Your task to perform on an android device: open the mobile data screen to see how much data has been used Image 0: 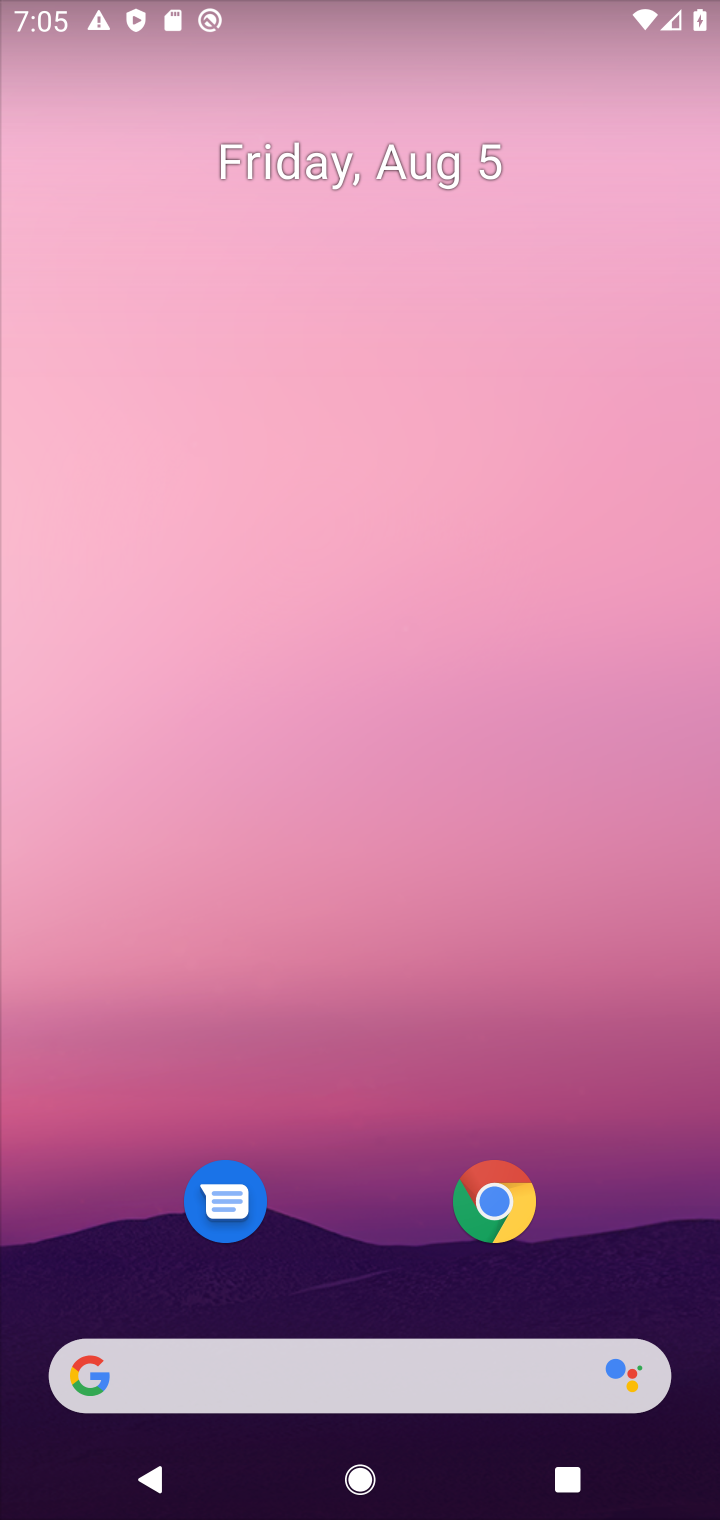
Step 0: drag from (512, 1203) to (474, 245)
Your task to perform on an android device: open the mobile data screen to see how much data has been used Image 1: 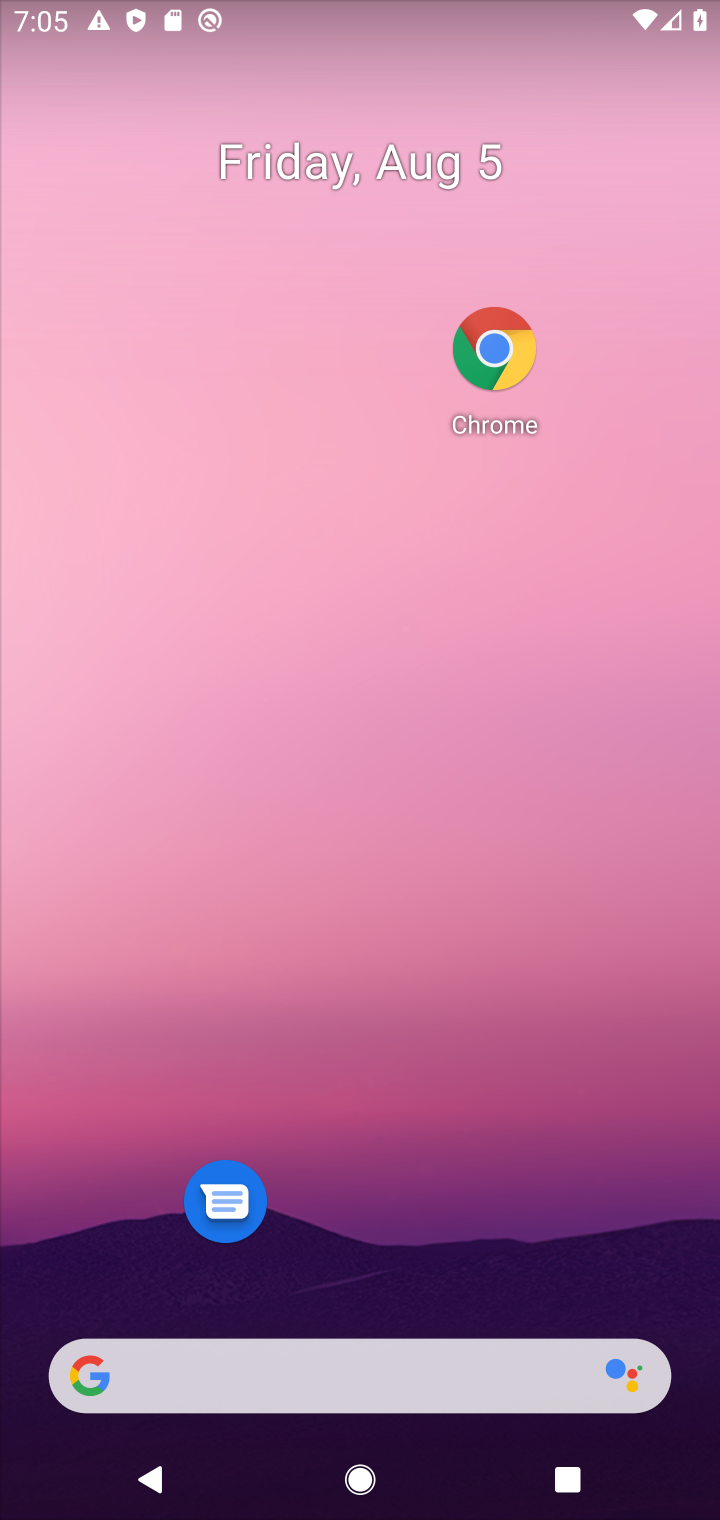
Step 1: drag from (205, 1184) to (213, 431)
Your task to perform on an android device: open the mobile data screen to see how much data has been used Image 2: 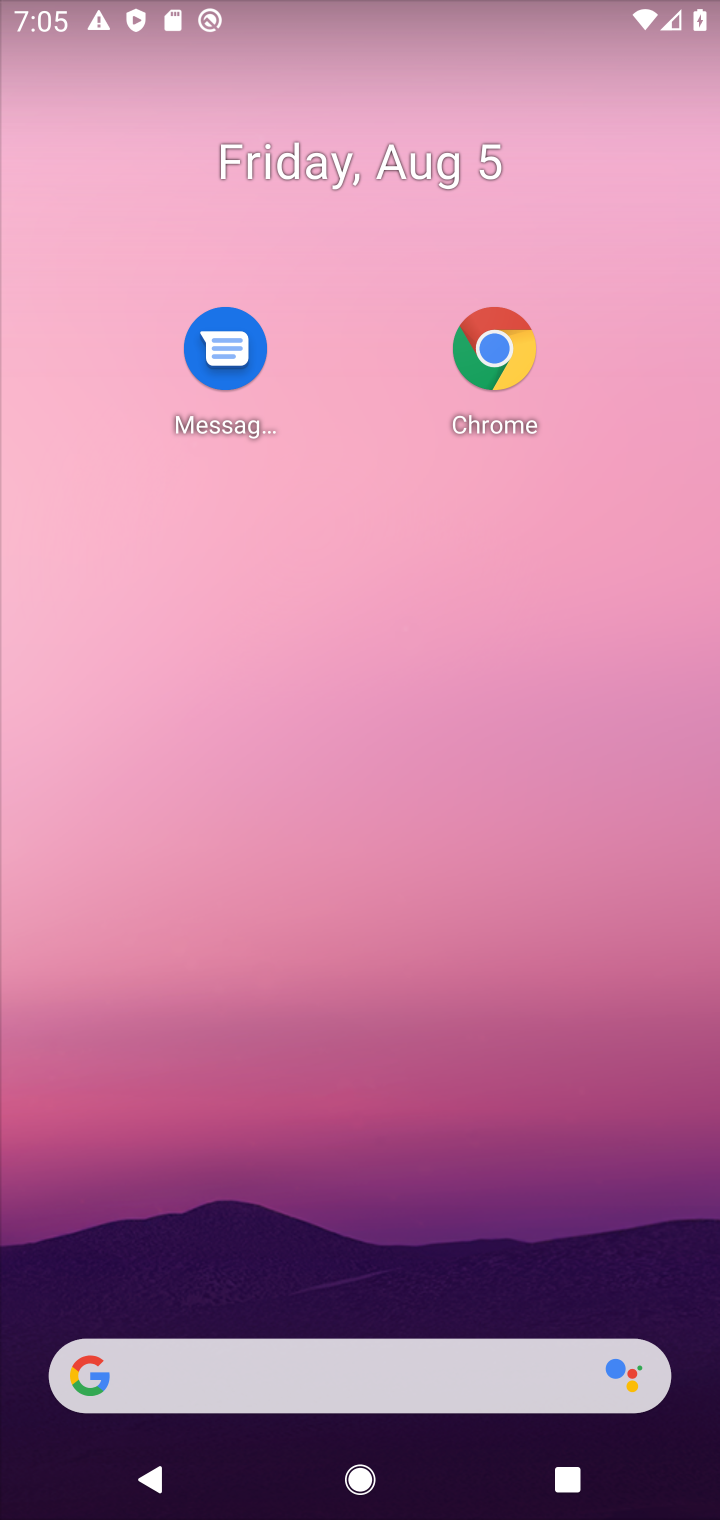
Step 2: drag from (393, 1112) to (347, 261)
Your task to perform on an android device: open the mobile data screen to see how much data has been used Image 3: 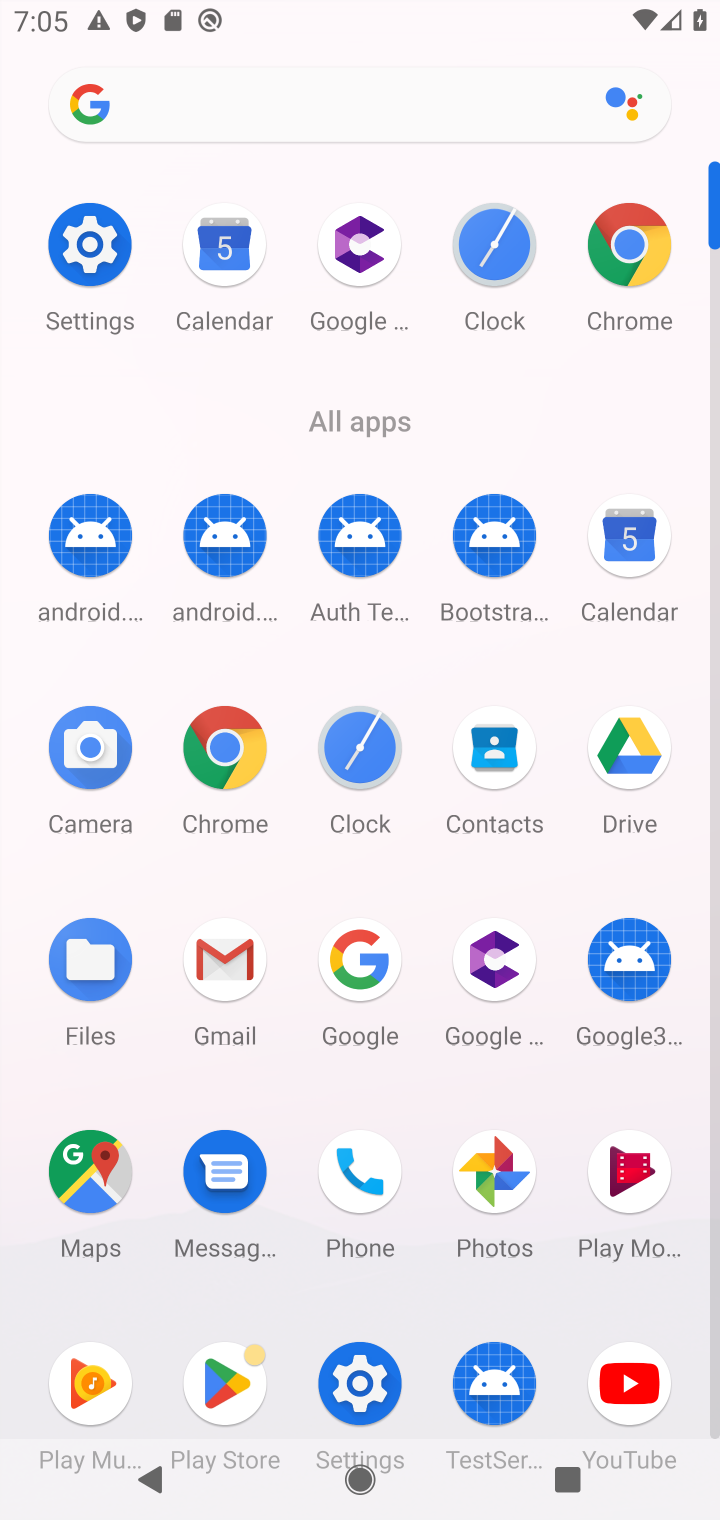
Step 3: click (390, 1375)
Your task to perform on an android device: open the mobile data screen to see how much data has been used Image 4: 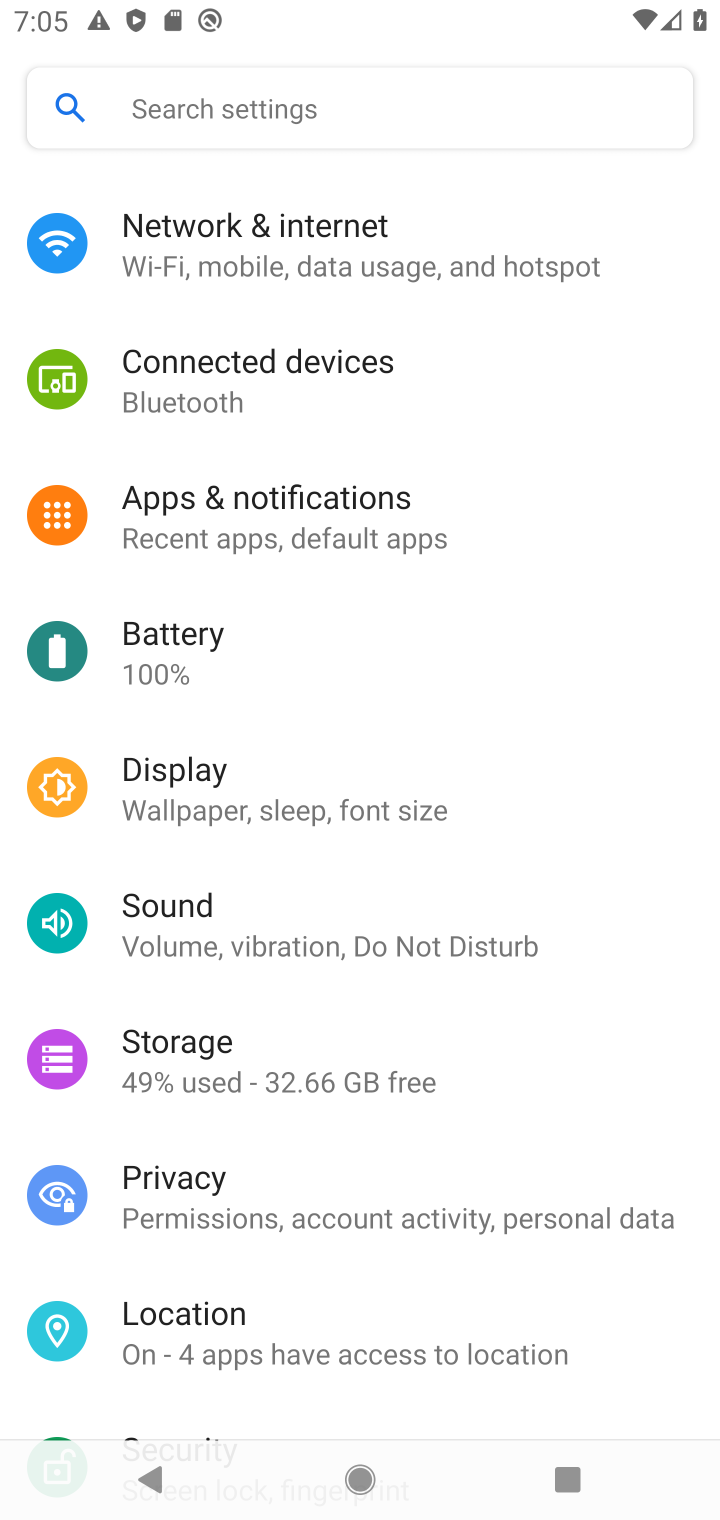
Step 4: click (253, 120)
Your task to perform on an android device: open the mobile data screen to see how much data has been used Image 5: 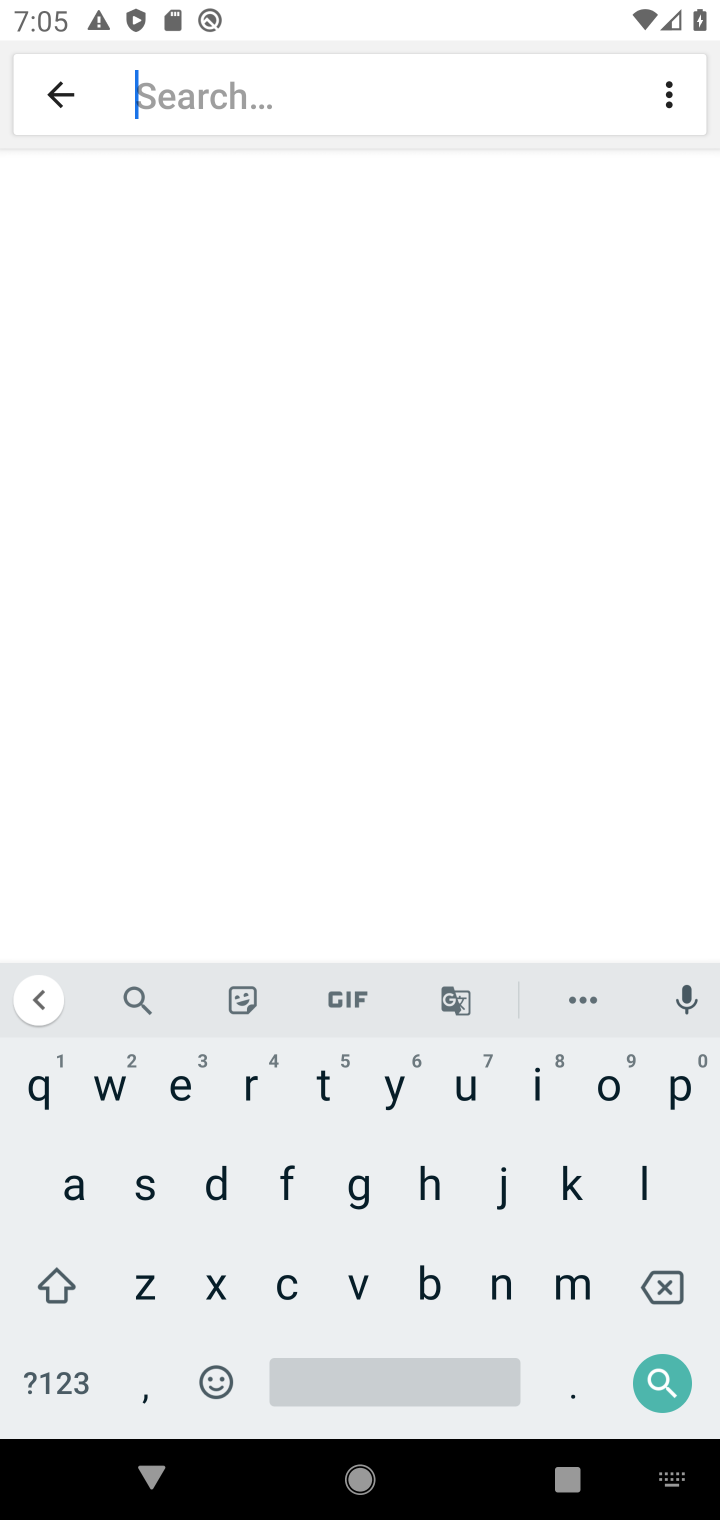
Step 5: click (223, 1185)
Your task to perform on an android device: open the mobile data screen to see how much data has been used Image 6: 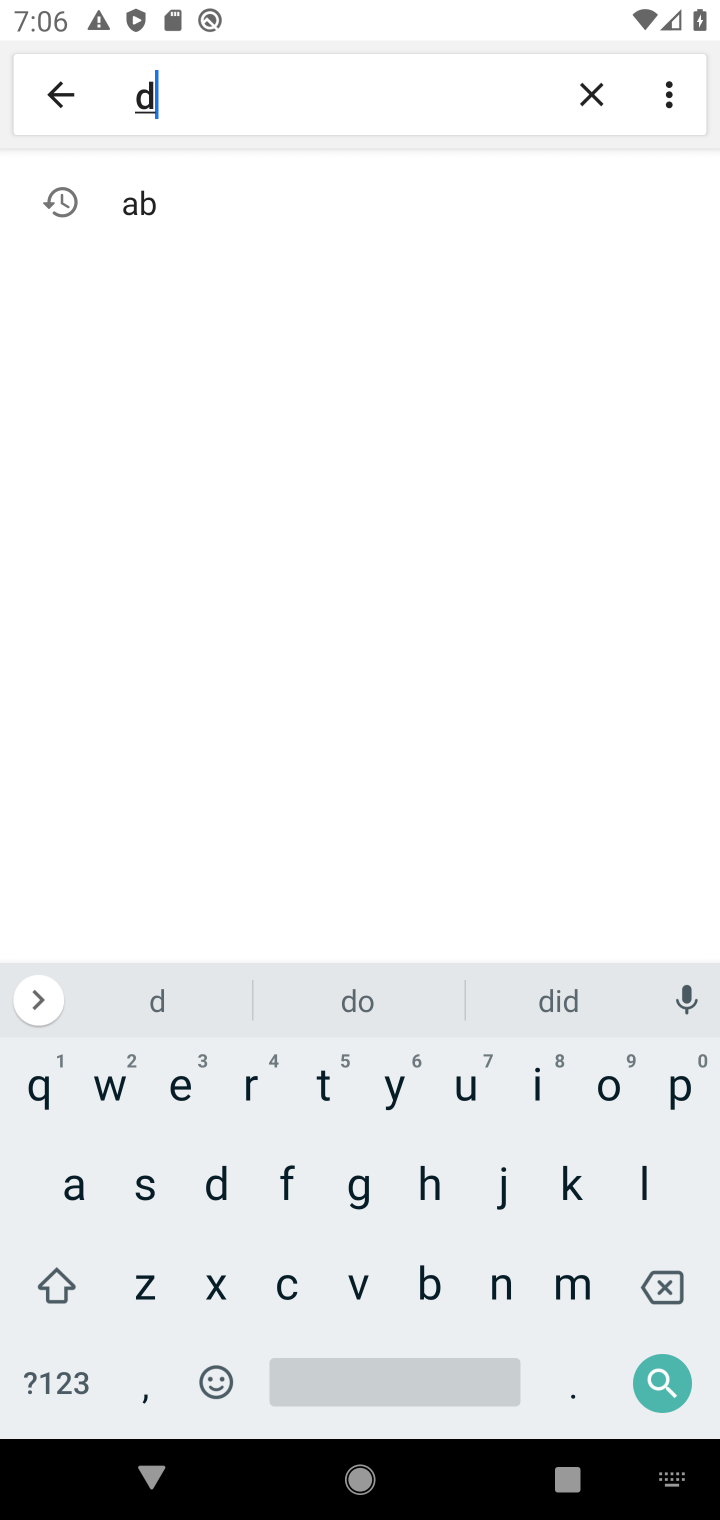
Step 6: click (73, 1171)
Your task to perform on an android device: open the mobile data screen to see how much data has been used Image 7: 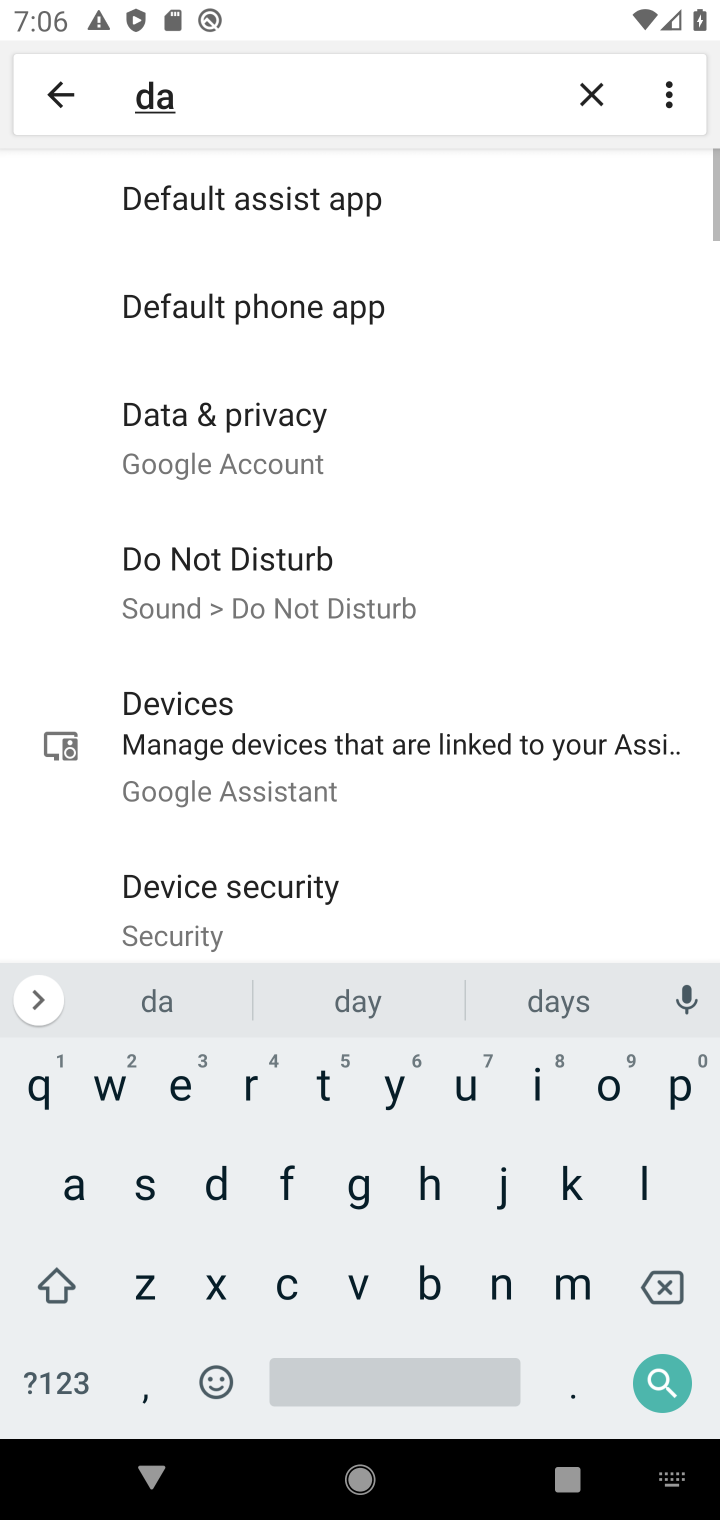
Step 7: click (332, 1079)
Your task to perform on an android device: open the mobile data screen to see how much data has been used Image 8: 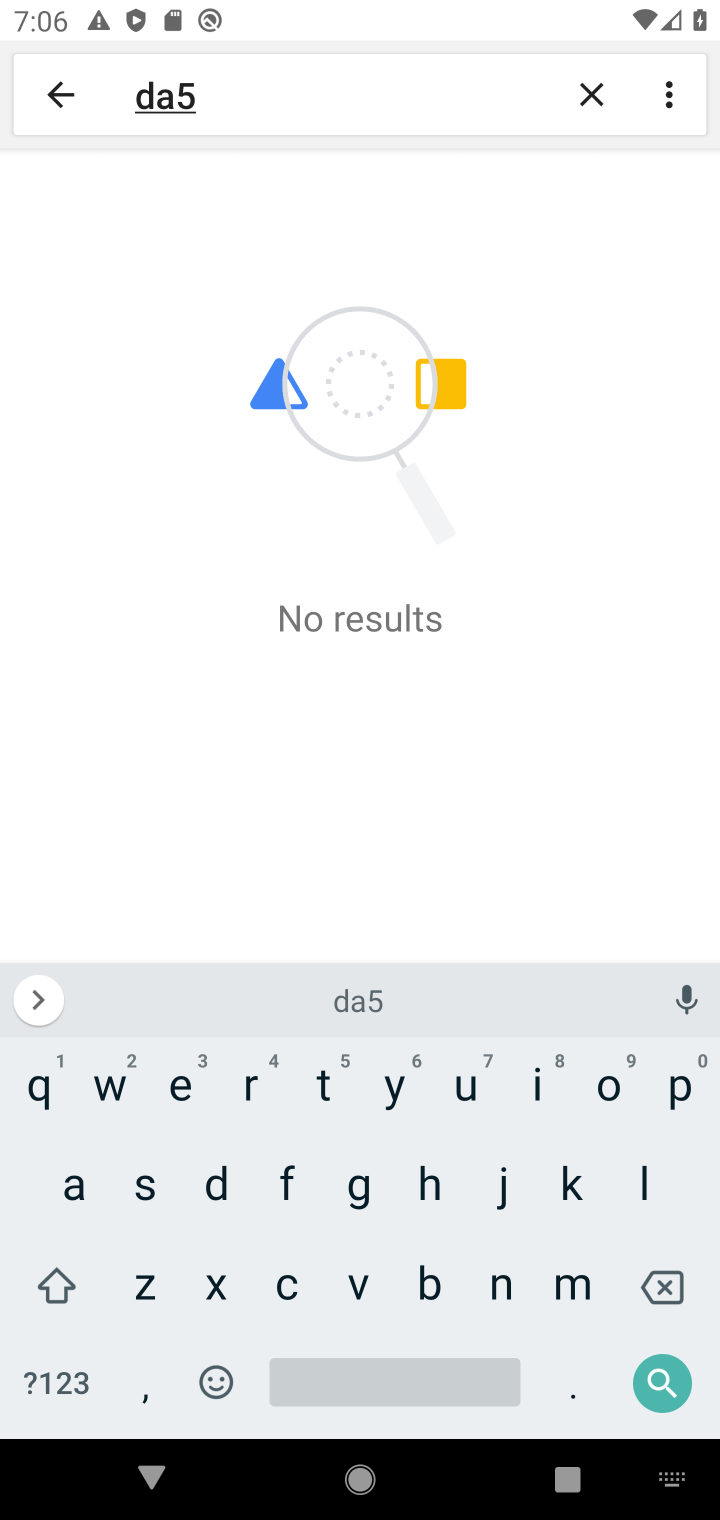
Step 8: click (74, 1184)
Your task to perform on an android device: open the mobile data screen to see how much data has been used Image 9: 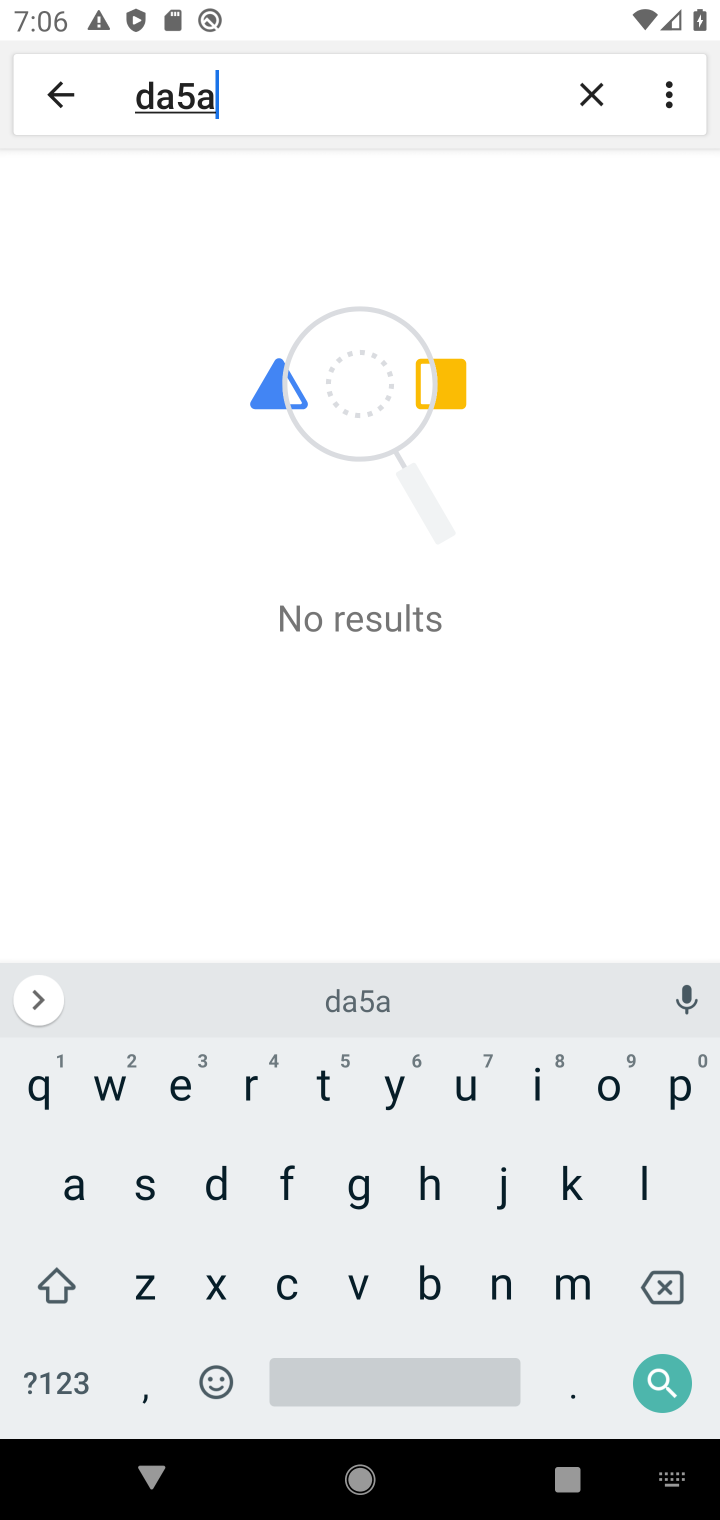
Step 9: click (645, 1265)
Your task to perform on an android device: open the mobile data screen to see how much data has been used Image 10: 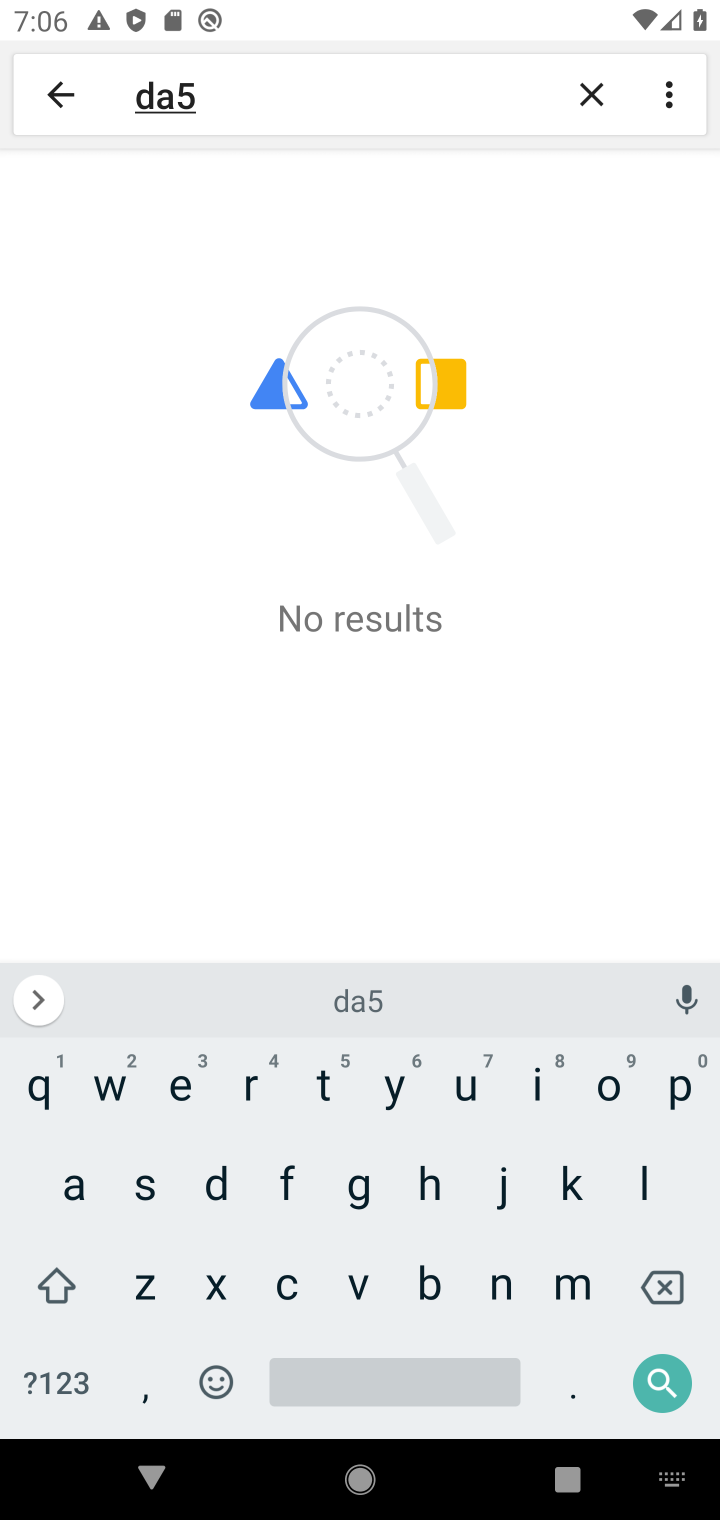
Step 10: click (645, 1265)
Your task to perform on an android device: open the mobile data screen to see how much data has been used Image 11: 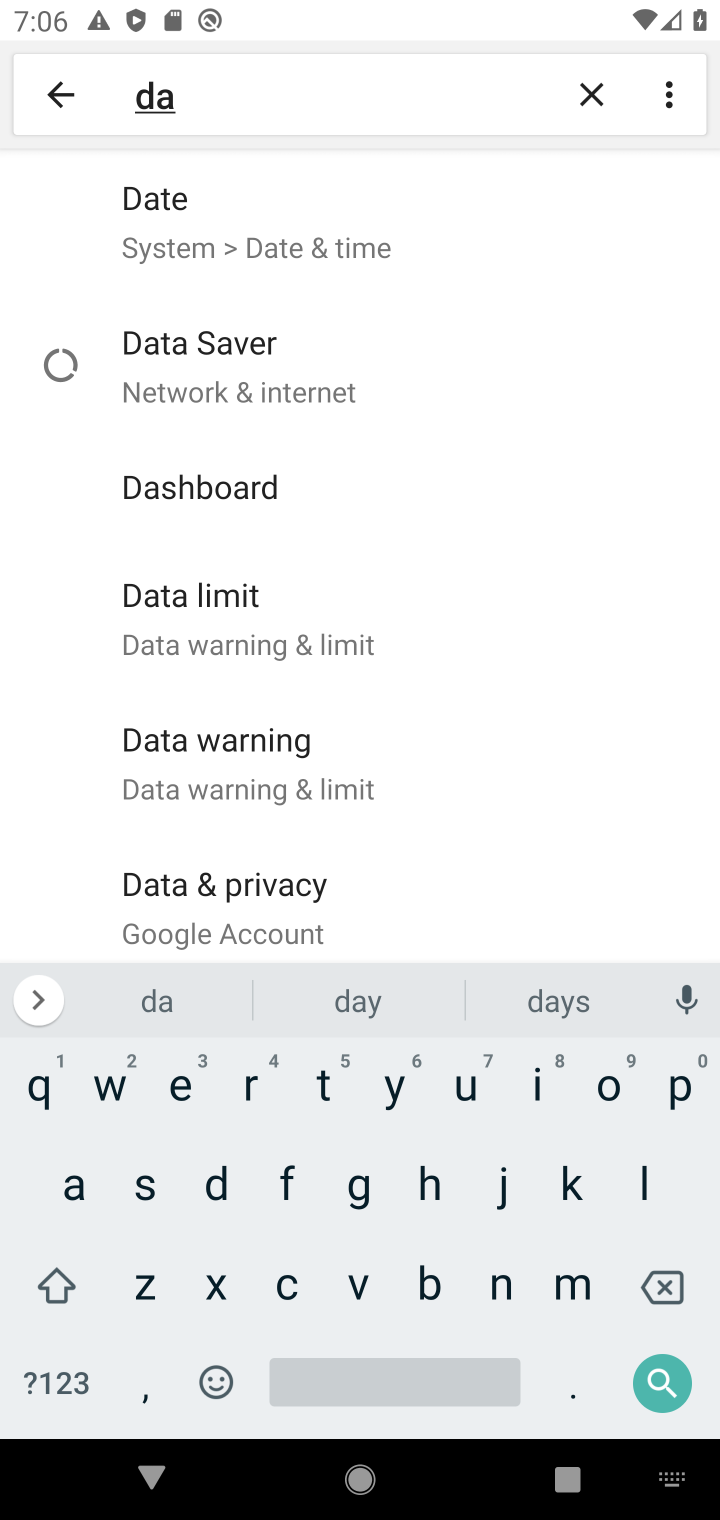
Step 11: click (314, 1093)
Your task to perform on an android device: open the mobile data screen to see how much data has been used Image 12: 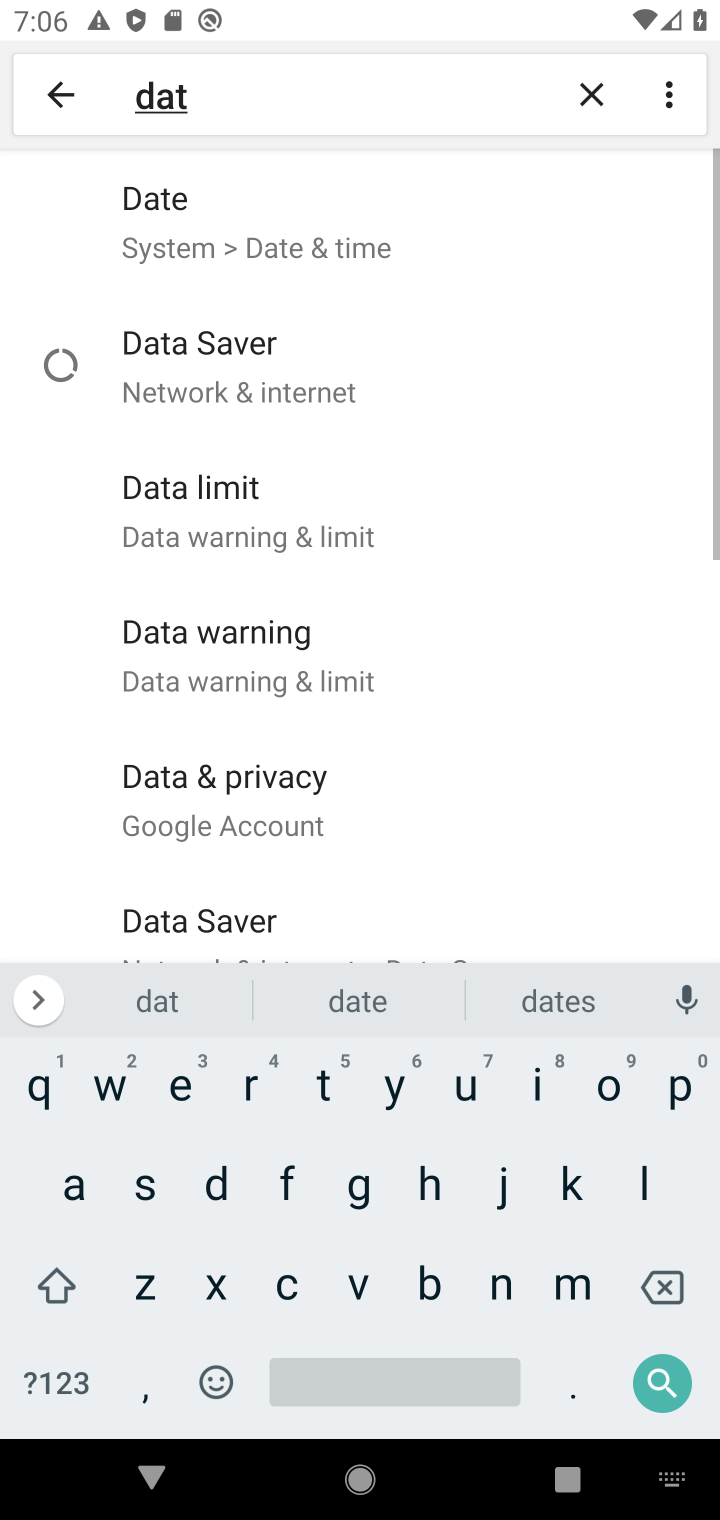
Step 12: click (54, 1189)
Your task to perform on an android device: open the mobile data screen to see how much data has been used Image 13: 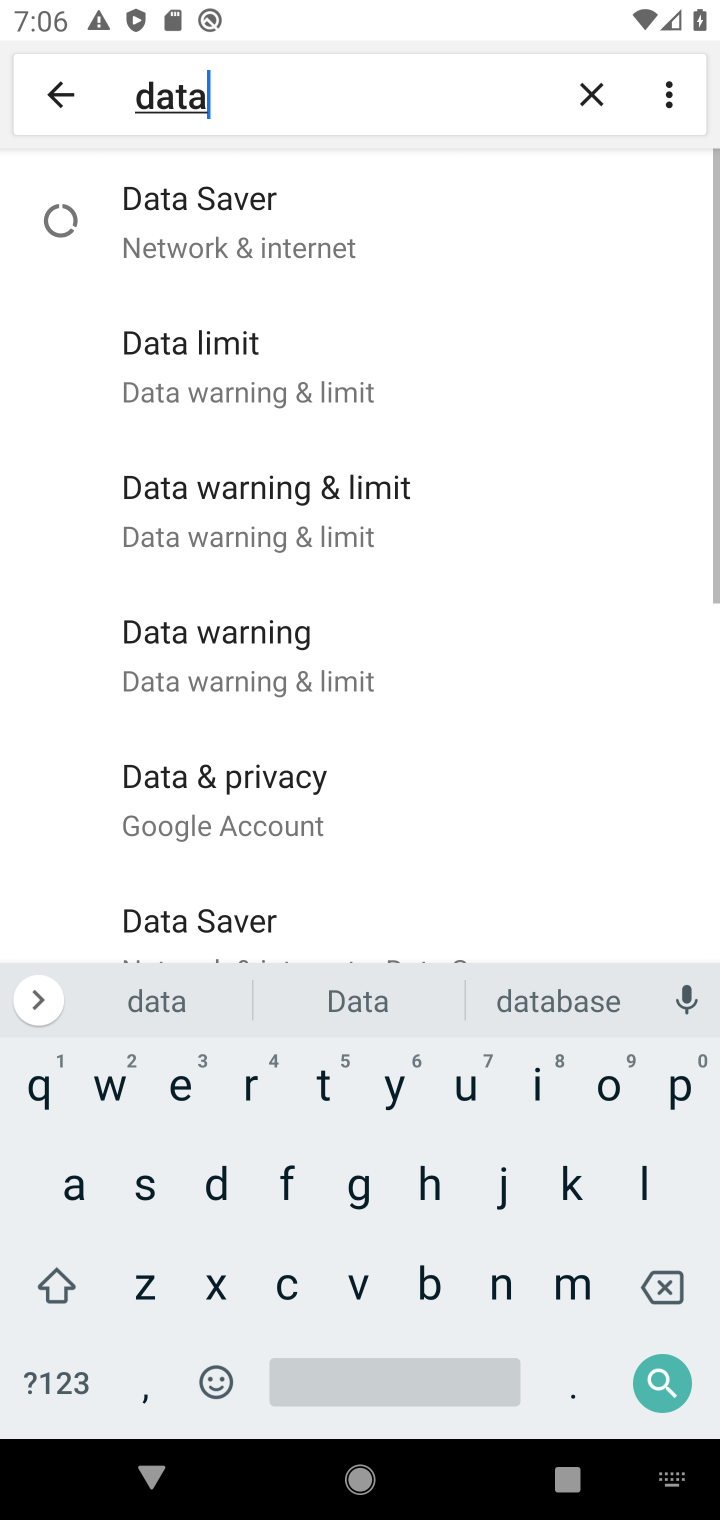
Step 13: click (385, 1378)
Your task to perform on an android device: open the mobile data screen to see how much data has been used Image 14: 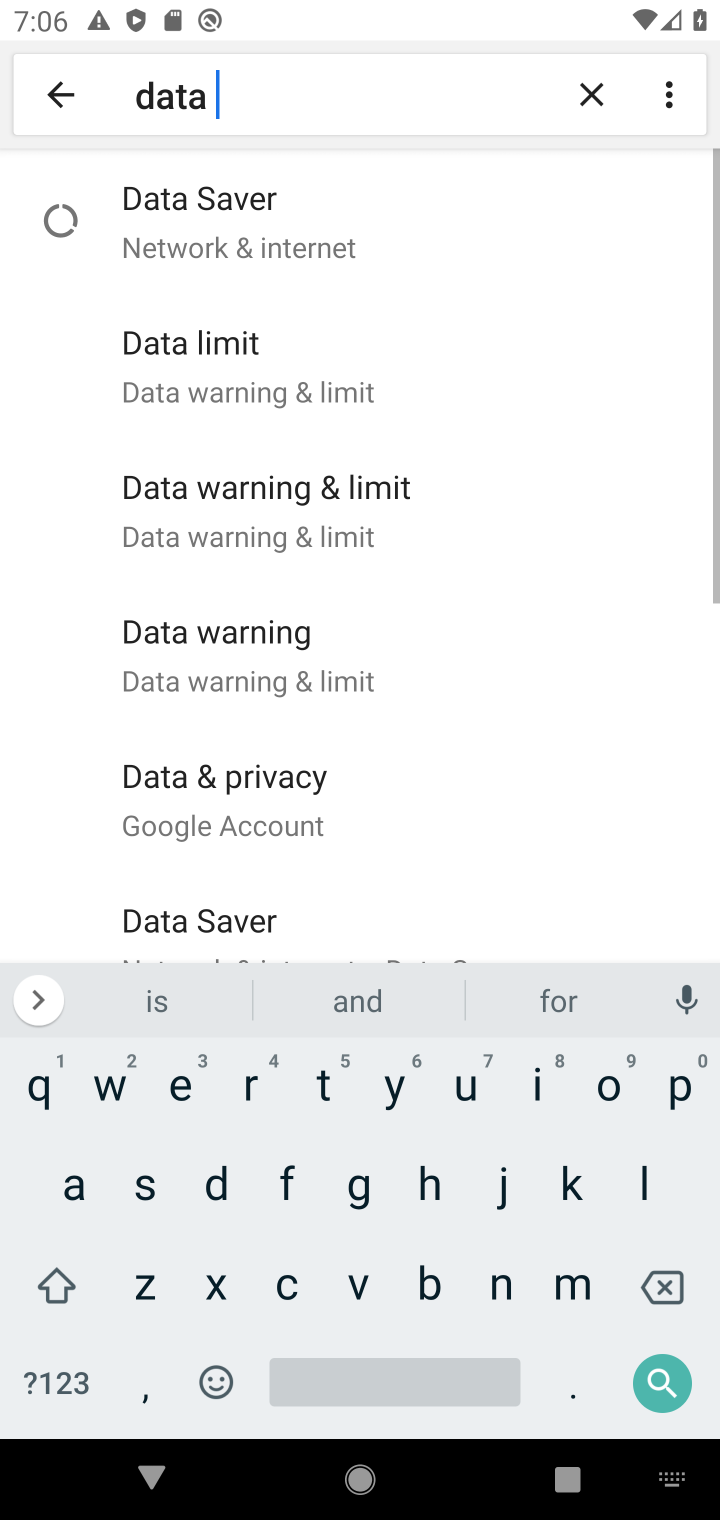
Step 14: click (472, 1078)
Your task to perform on an android device: open the mobile data screen to see how much data has been used Image 15: 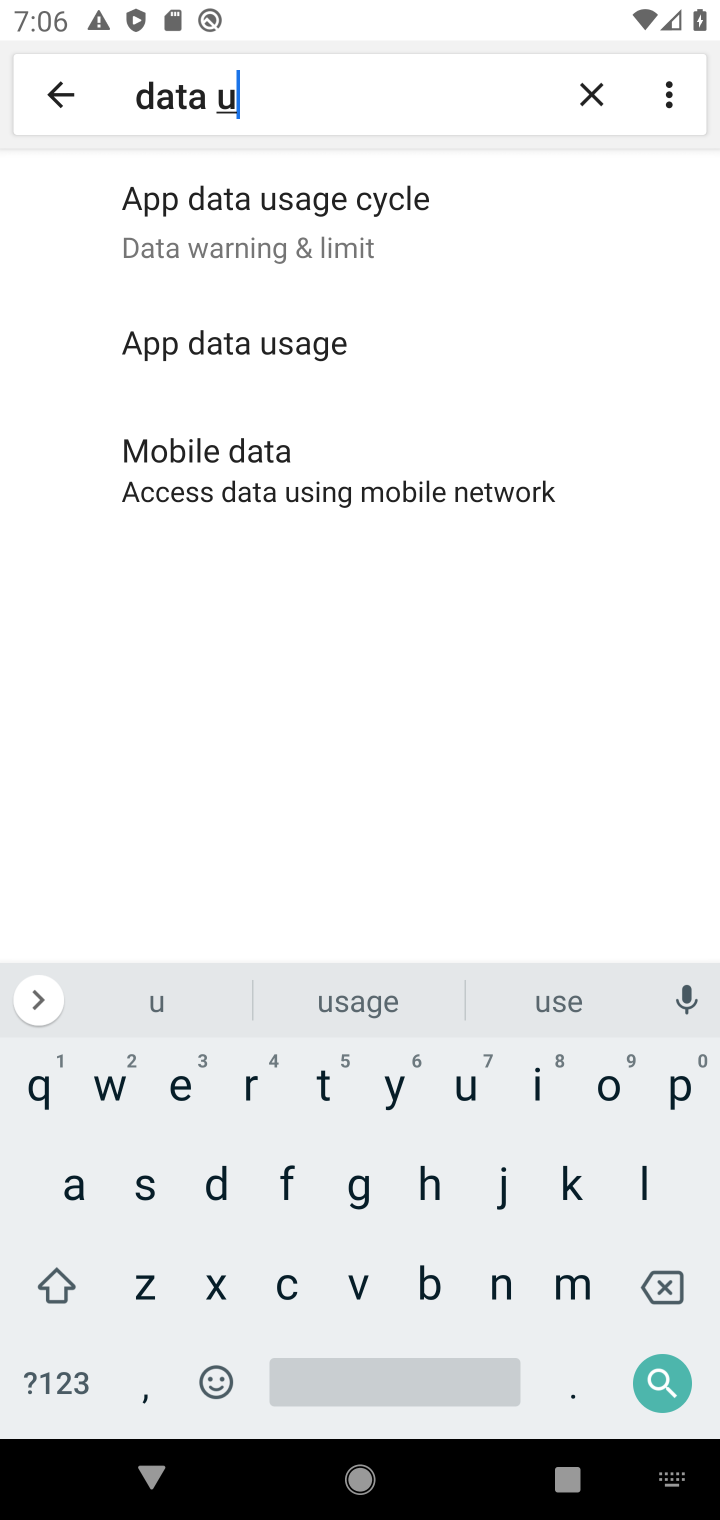
Step 15: click (287, 342)
Your task to perform on an android device: open the mobile data screen to see how much data has been used Image 16: 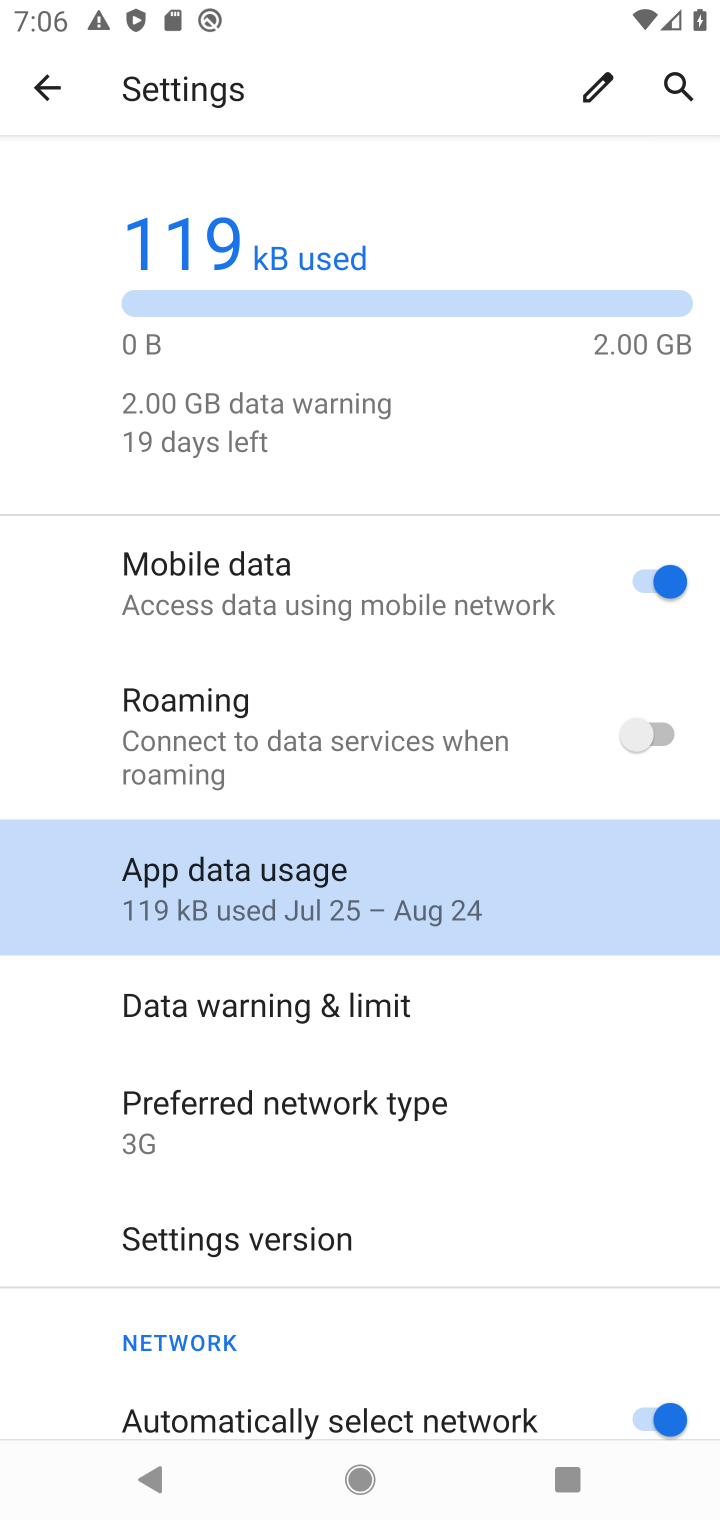
Step 16: click (304, 866)
Your task to perform on an android device: open the mobile data screen to see how much data has been used Image 17: 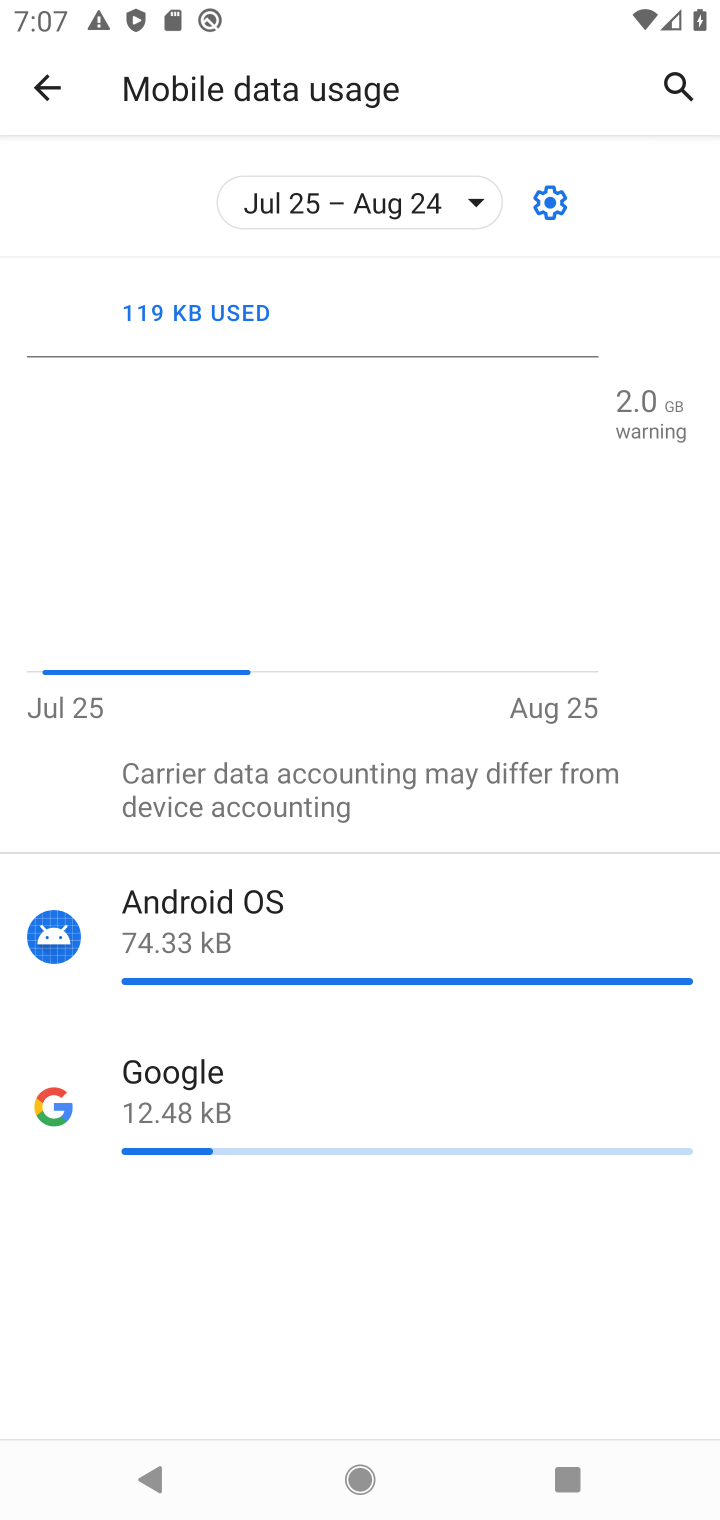
Step 17: task complete